Your task to perform on an android device: allow cookies in the chrome app Image 0: 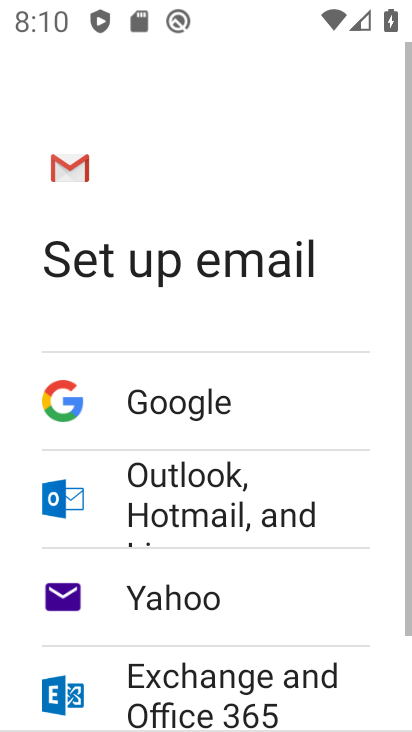
Step 0: press home button
Your task to perform on an android device: allow cookies in the chrome app Image 1: 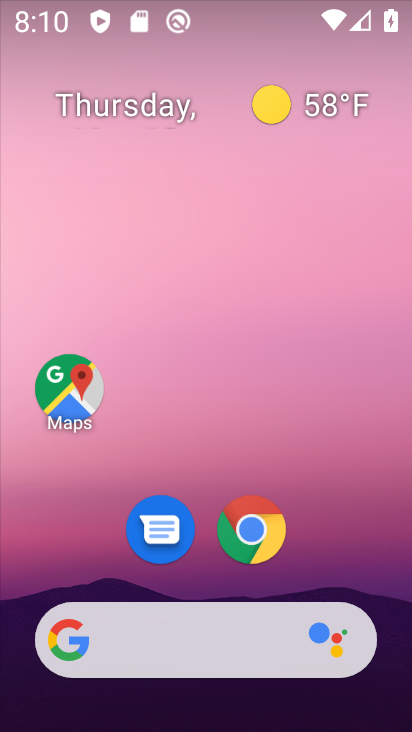
Step 1: click (251, 531)
Your task to perform on an android device: allow cookies in the chrome app Image 2: 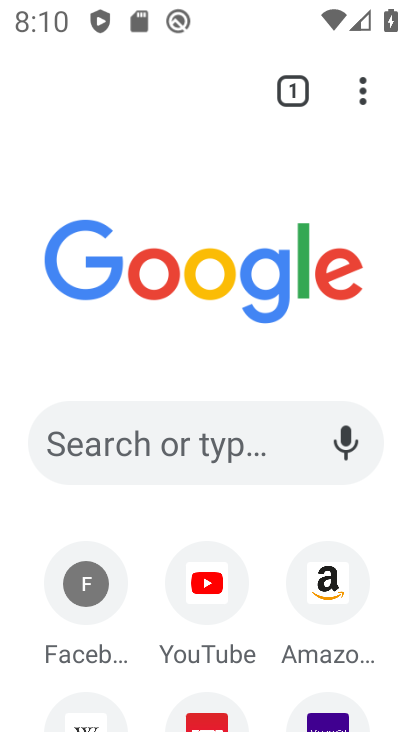
Step 2: click (353, 98)
Your task to perform on an android device: allow cookies in the chrome app Image 3: 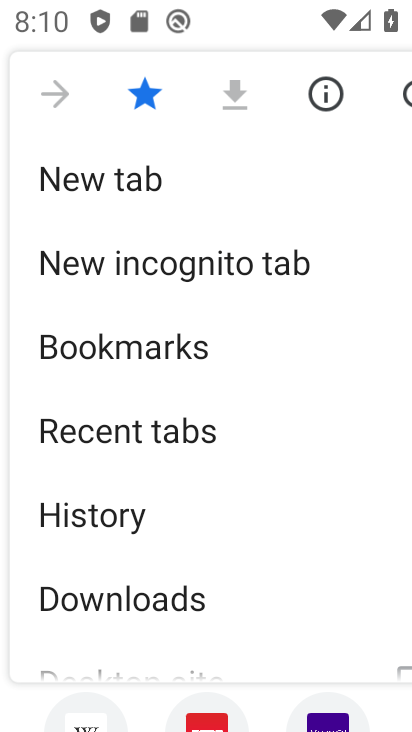
Step 3: drag from (198, 552) to (190, 111)
Your task to perform on an android device: allow cookies in the chrome app Image 4: 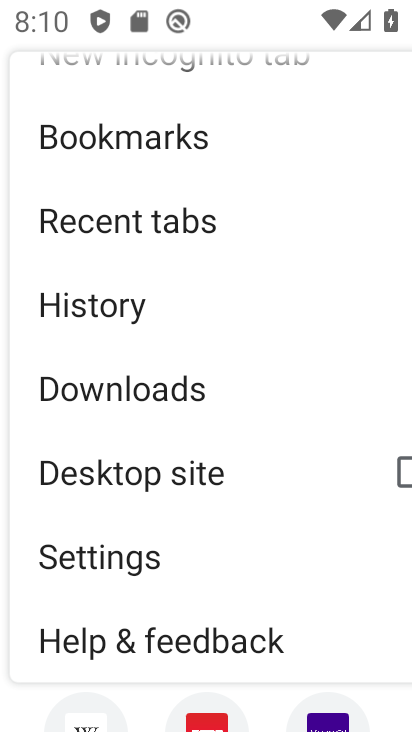
Step 4: drag from (176, 590) to (153, 554)
Your task to perform on an android device: allow cookies in the chrome app Image 5: 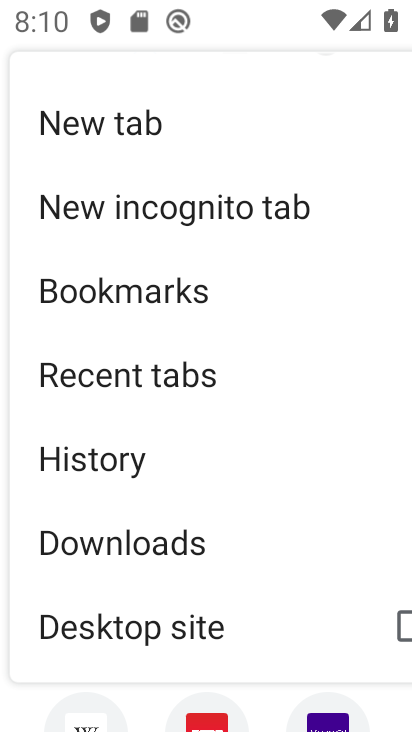
Step 5: drag from (152, 556) to (182, 306)
Your task to perform on an android device: allow cookies in the chrome app Image 6: 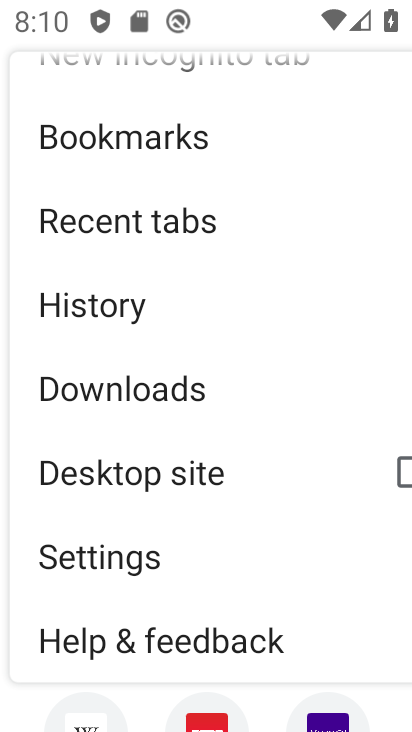
Step 6: click (177, 556)
Your task to perform on an android device: allow cookies in the chrome app Image 7: 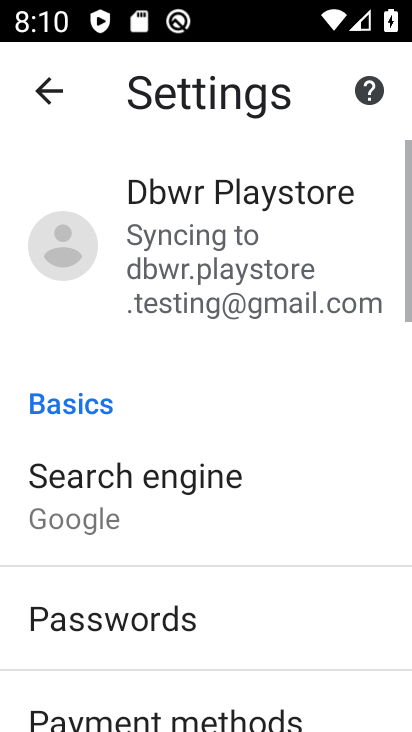
Step 7: drag from (249, 660) to (266, 118)
Your task to perform on an android device: allow cookies in the chrome app Image 8: 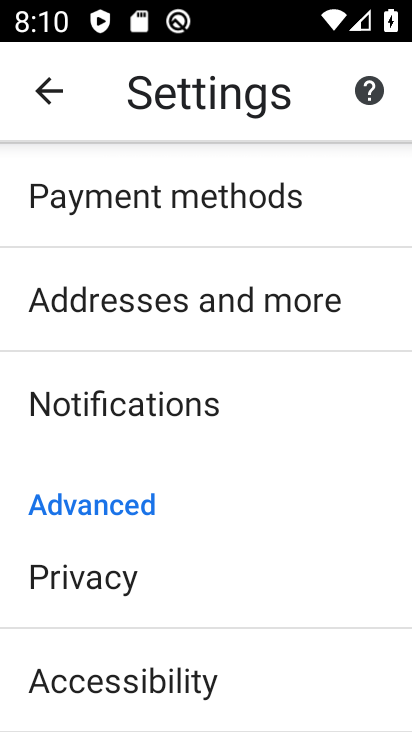
Step 8: drag from (179, 650) to (190, 172)
Your task to perform on an android device: allow cookies in the chrome app Image 9: 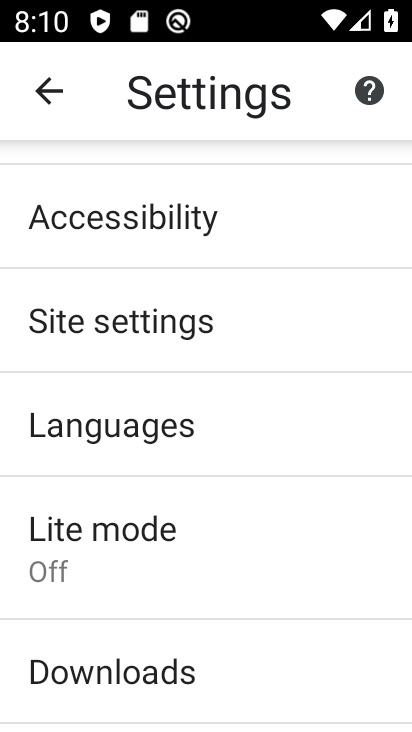
Step 9: click (80, 315)
Your task to perform on an android device: allow cookies in the chrome app Image 10: 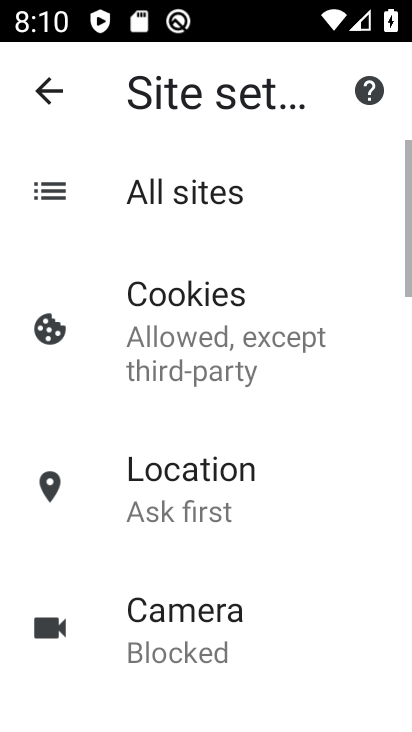
Step 10: click (188, 332)
Your task to perform on an android device: allow cookies in the chrome app Image 11: 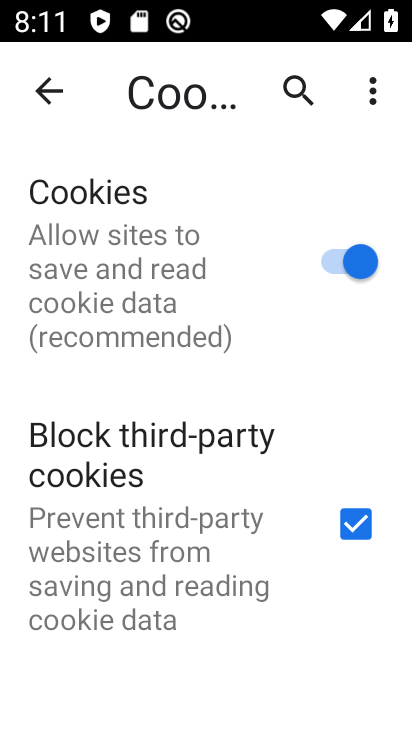
Step 11: task complete